Your task to perform on an android device: see tabs open on other devices in the chrome app Image 0: 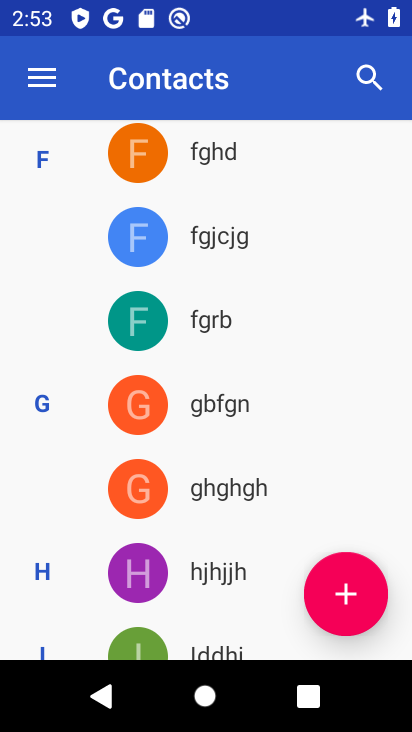
Step 0: press back button
Your task to perform on an android device: see tabs open on other devices in the chrome app Image 1: 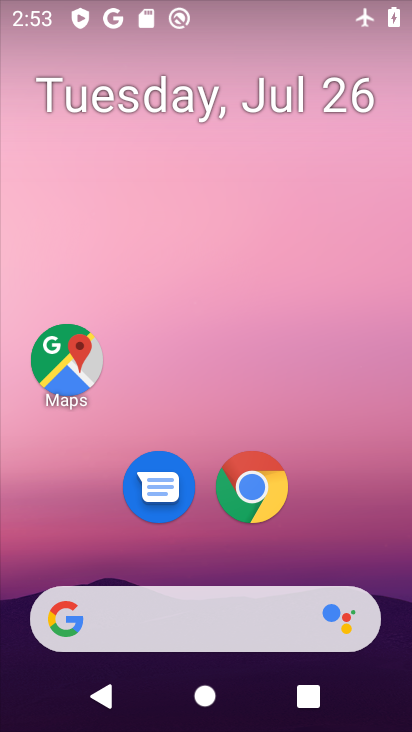
Step 1: click (270, 471)
Your task to perform on an android device: see tabs open on other devices in the chrome app Image 2: 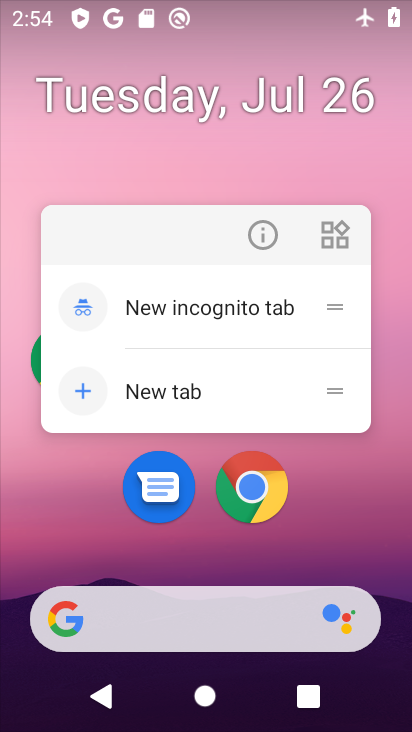
Step 2: click (260, 485)
Your task to perform on an android device: see tabs open on other devices in the chrome app Image 3: 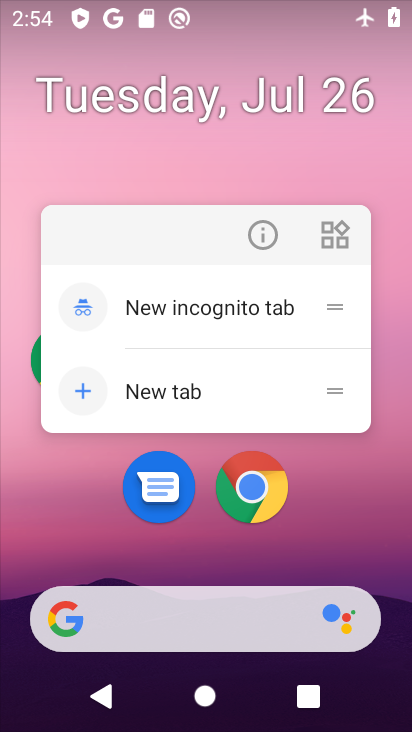
Step 3: click (252, 478)
Your task to perform on an android device: see tabs open on other devices in the chrome app Image 4: 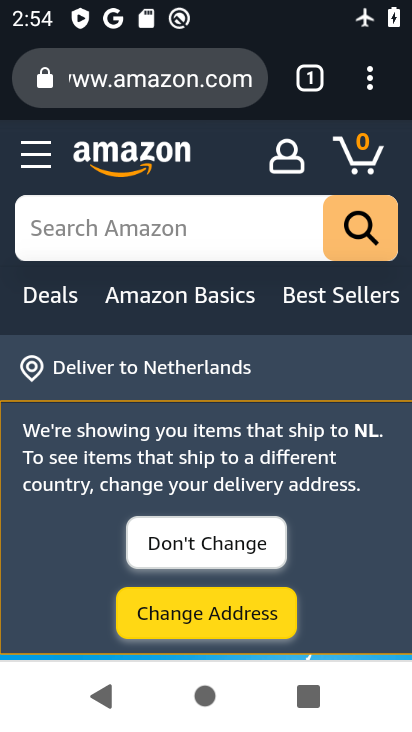
Step 4: task complete